Your task to perform on an android device: What's the weather? Image 0: 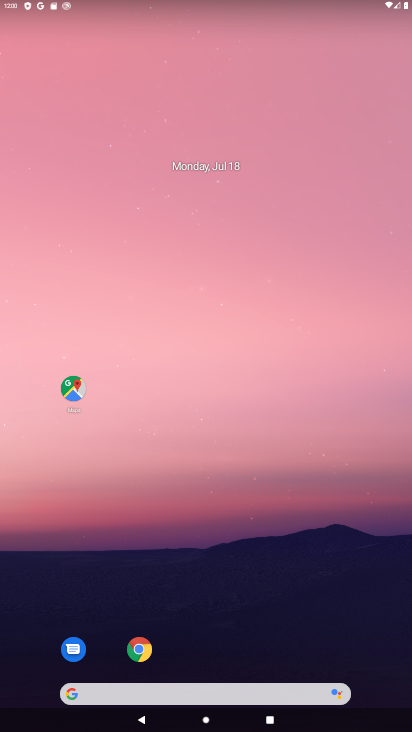
Step 0: click (306, 1)
Your task to perform on an android device: What's the weather? Image 1: 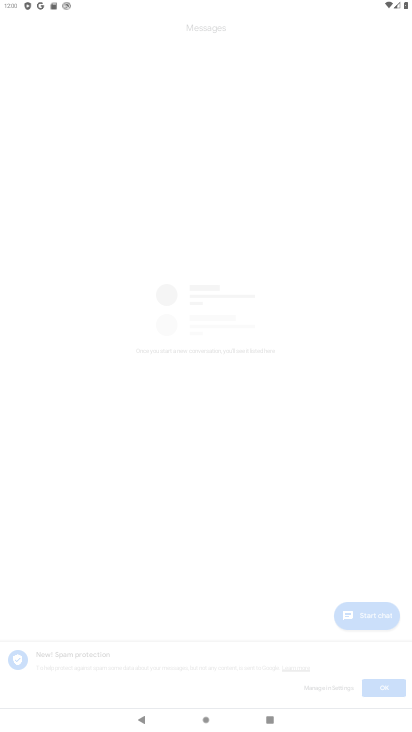
Step 1: drag from (200, 669) to (192, 164)
Your task to perform on an android device: What's the weather? Image 2: 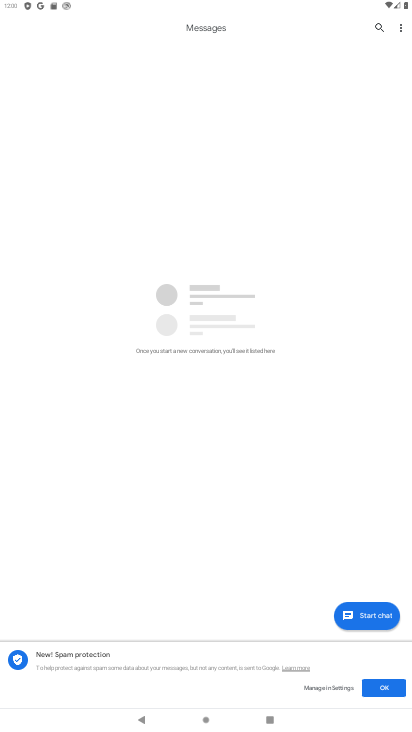
Step 2: press home button
Your task to perform on an android device: What's the weather? Image 3: 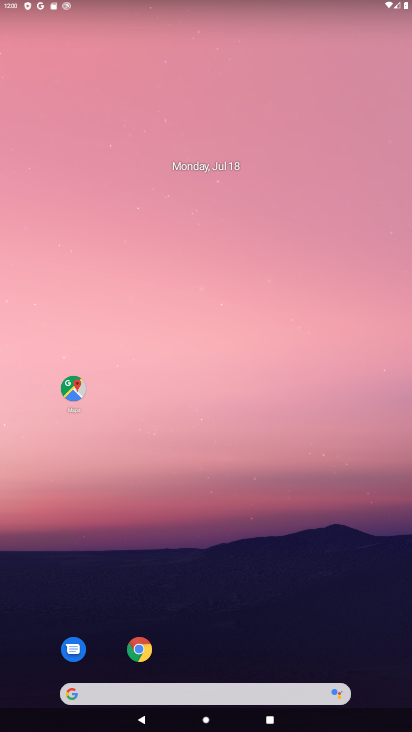
Step 3: click (156, 691)
Your task to perform on an android device: What's the weather? Image 4: 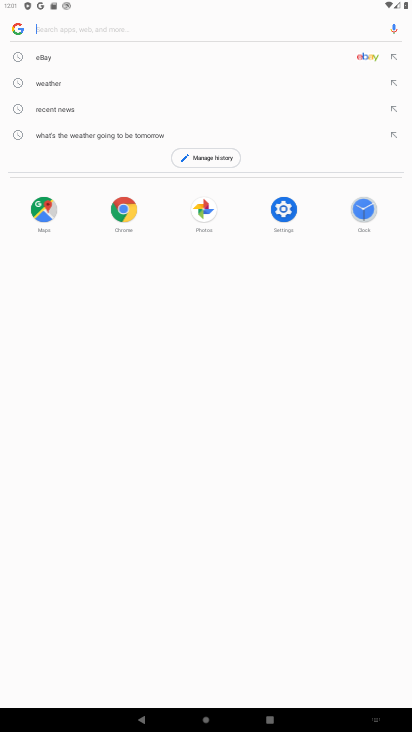
Step 4: type "weather"
Your task to perform on an android device: What's the weather? Image 5: 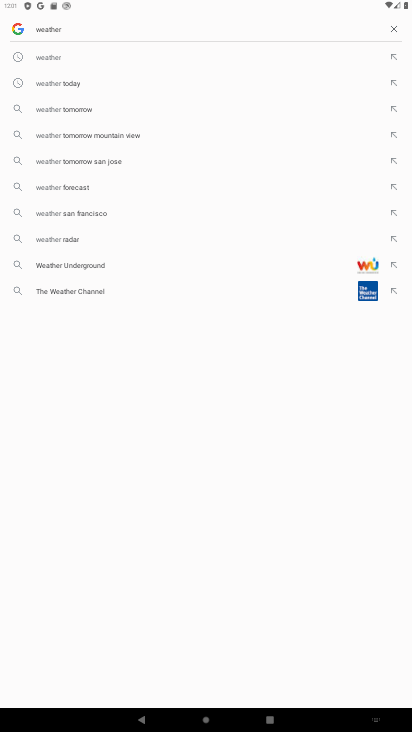
Step 5: click (62, 55)
Your task to perform on an android device: What's the weather? Image 6: 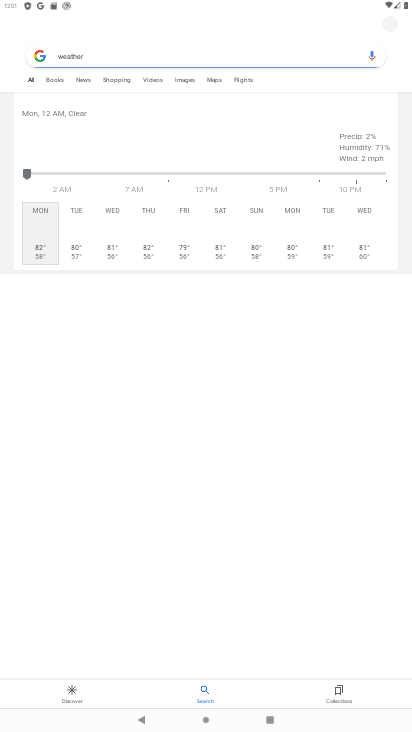
Step 6: task complete